Your task to perform on an android device: toggle improve location accuracy Image 0: 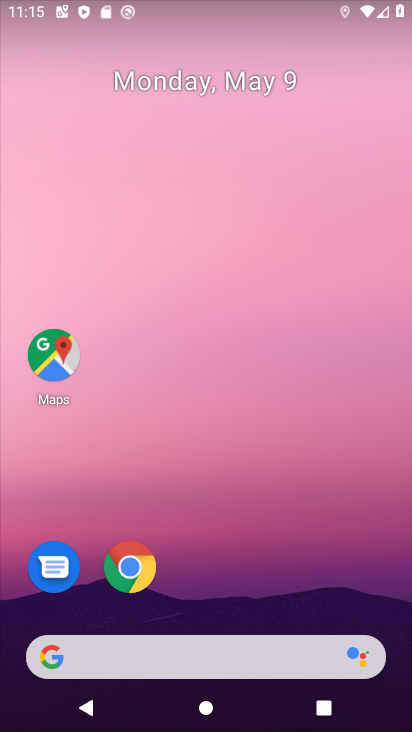
Step 0: drag from (214, 555) to (260, 14)
Your task to perform on an android device: toggle improve location accuracy Image 1: 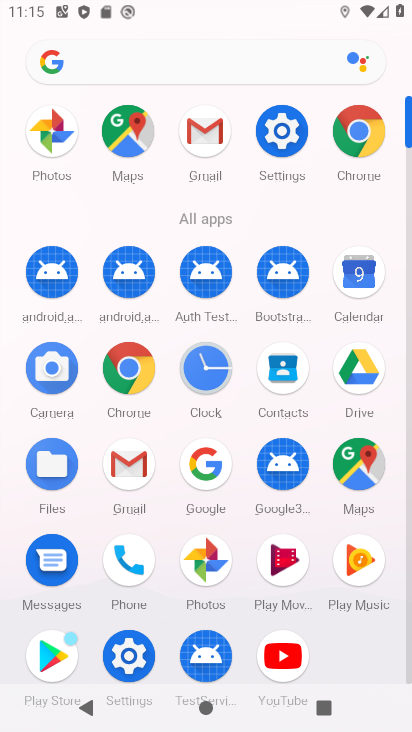
Step 1: click (284, 163)
Your task to perform on an android device: toggle improve location accuracy Image 2: 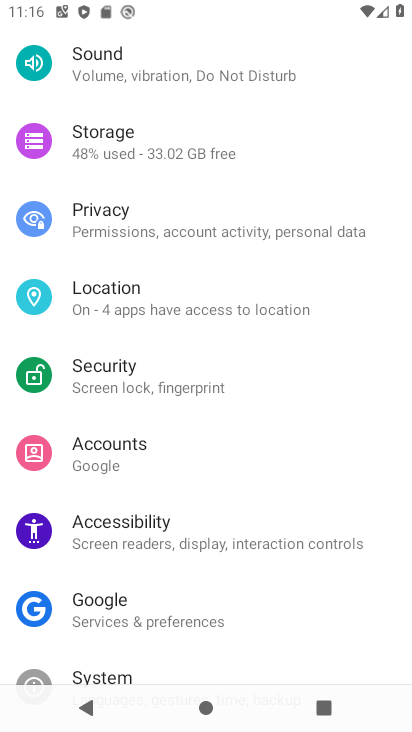
Step 2: click (158, 307)
Your task to perform on an android device: toggle improve location accuracy Image 3: 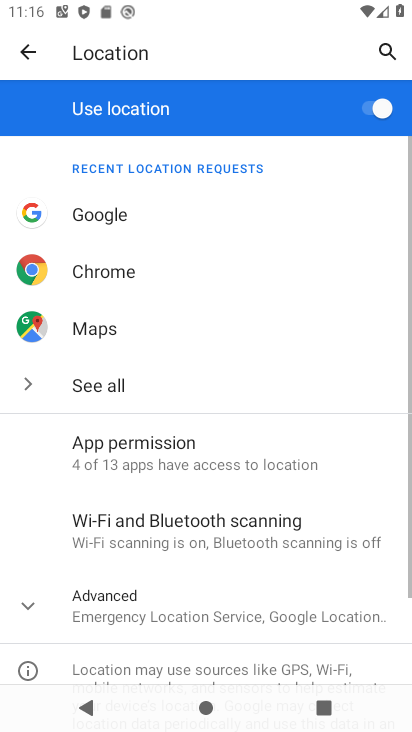
Step 3: click (159, 604)
Your task to perform on an android device: toggle improve location accuracy Image 4: 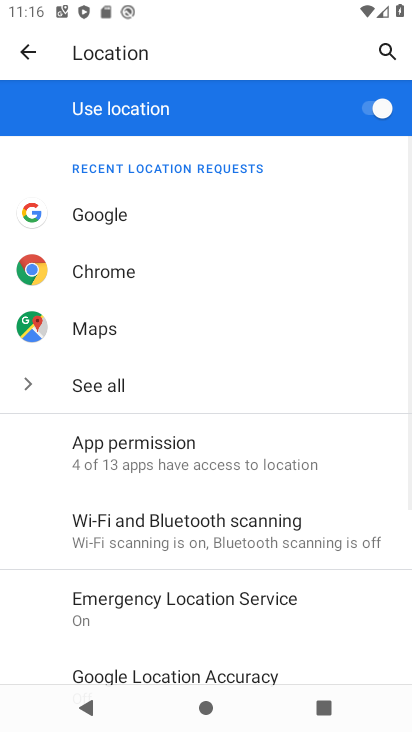
Step 4: drag from (204, 589) to (228, 344)
Your task to perform on an android device: toggle improve location accuracy Image 5: 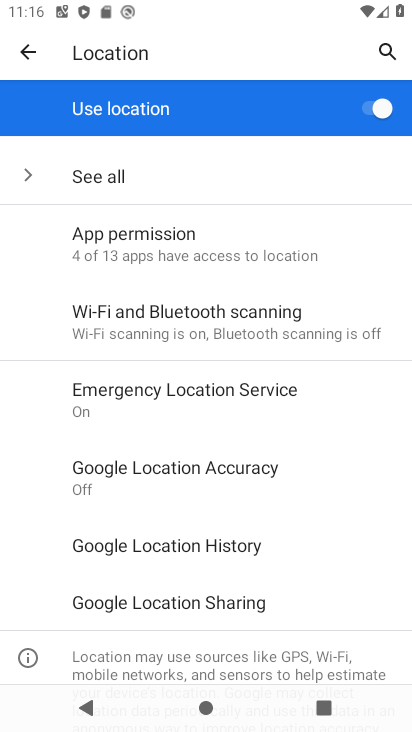
Step 5: click (155, 627)
Your task to perform on an android device: toggle improve location accuracy Image 6: 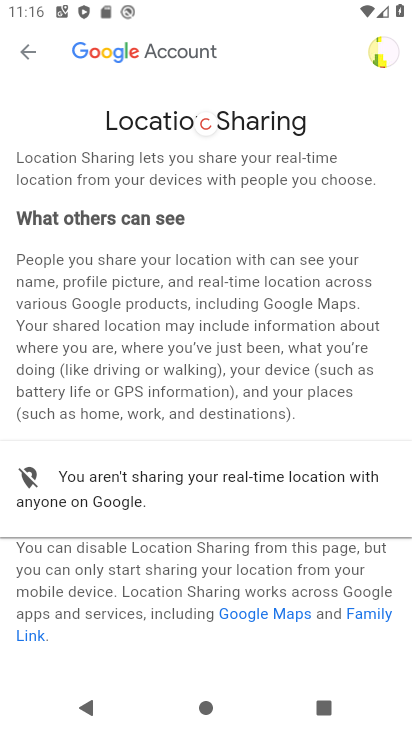
Step 6: press back button
Your task to perform on an android device: toggle improve location accuracy Image 7: 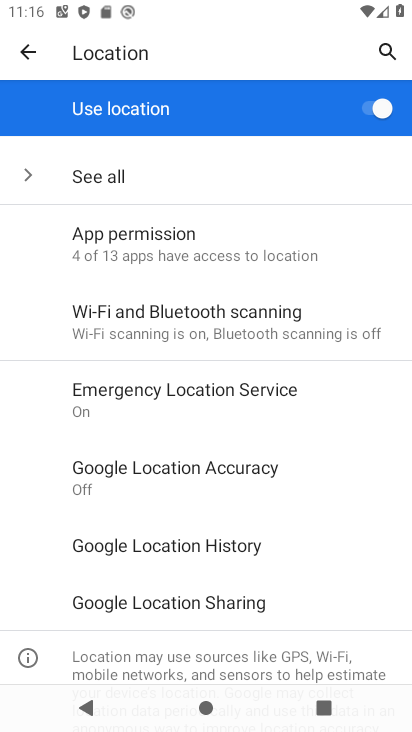
Step 7: click (183, 479)
Your task to perform on an android device: toggle improve location accuracy Image 8: 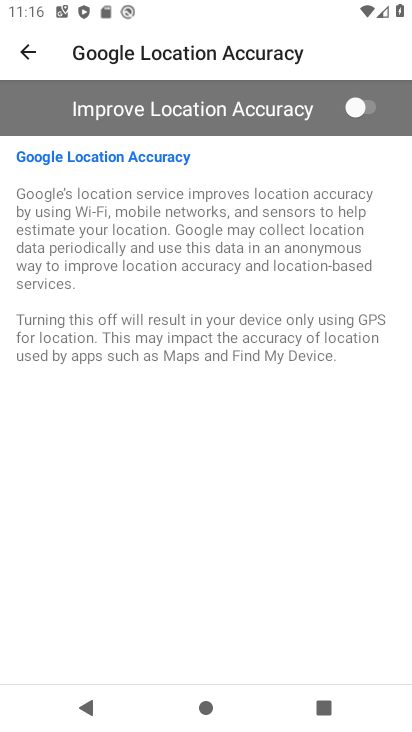
Step 8: click (381, 111)
Your task to perform on an android device: toggle improve location accuracy Image 9: 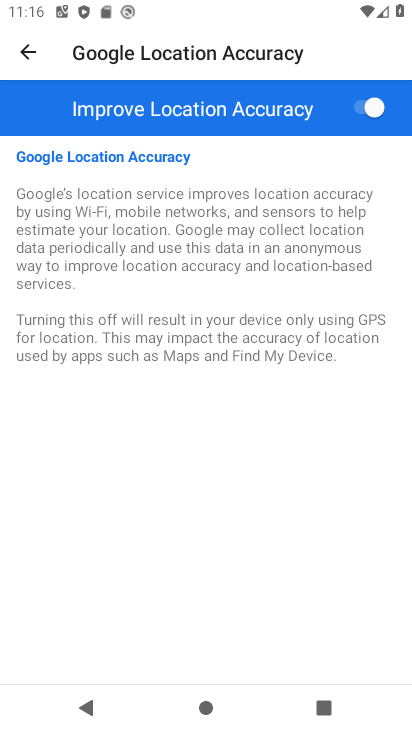
Step 9: task complete